Your task to perform on an android device: Find coffee shops on Maps Image 0: 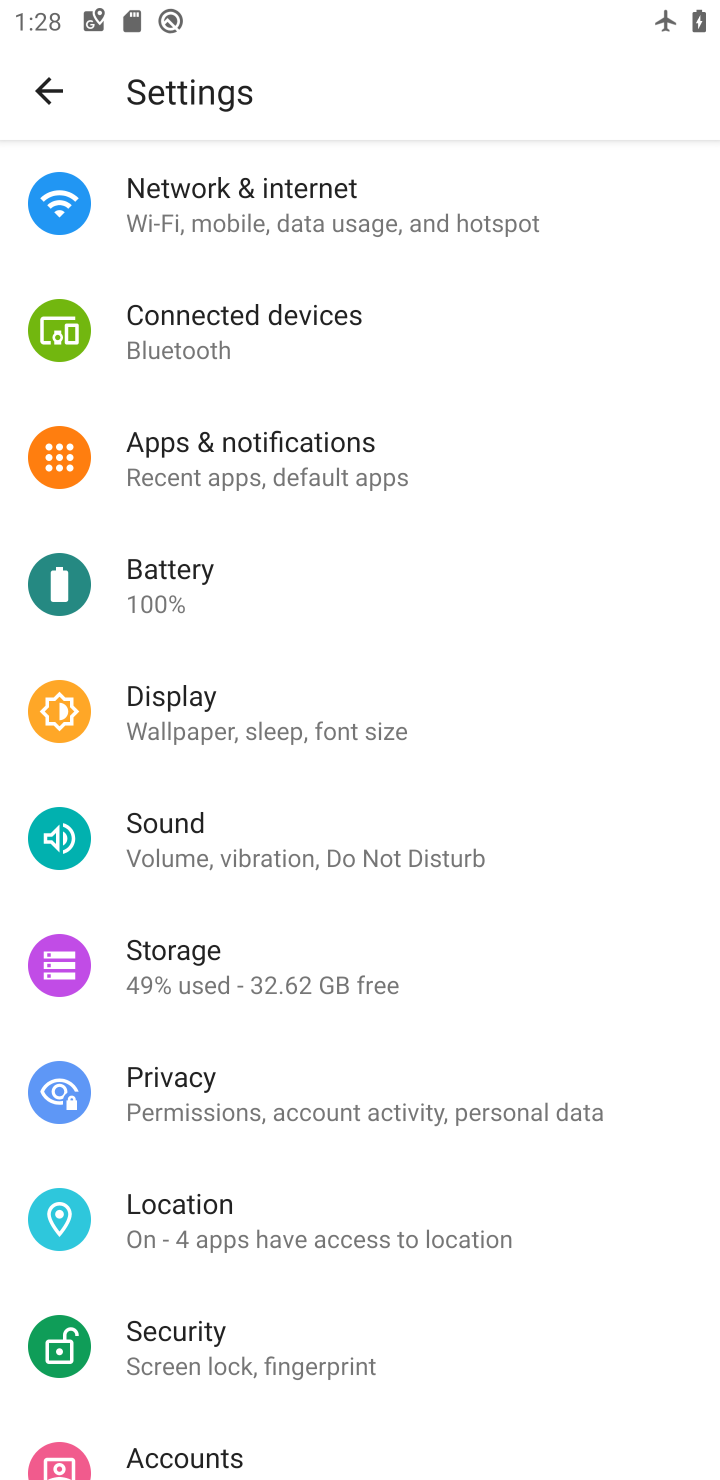
Step 0: press home button
Your task to perform on an android device: Find coffee shops on Maps Image 1: 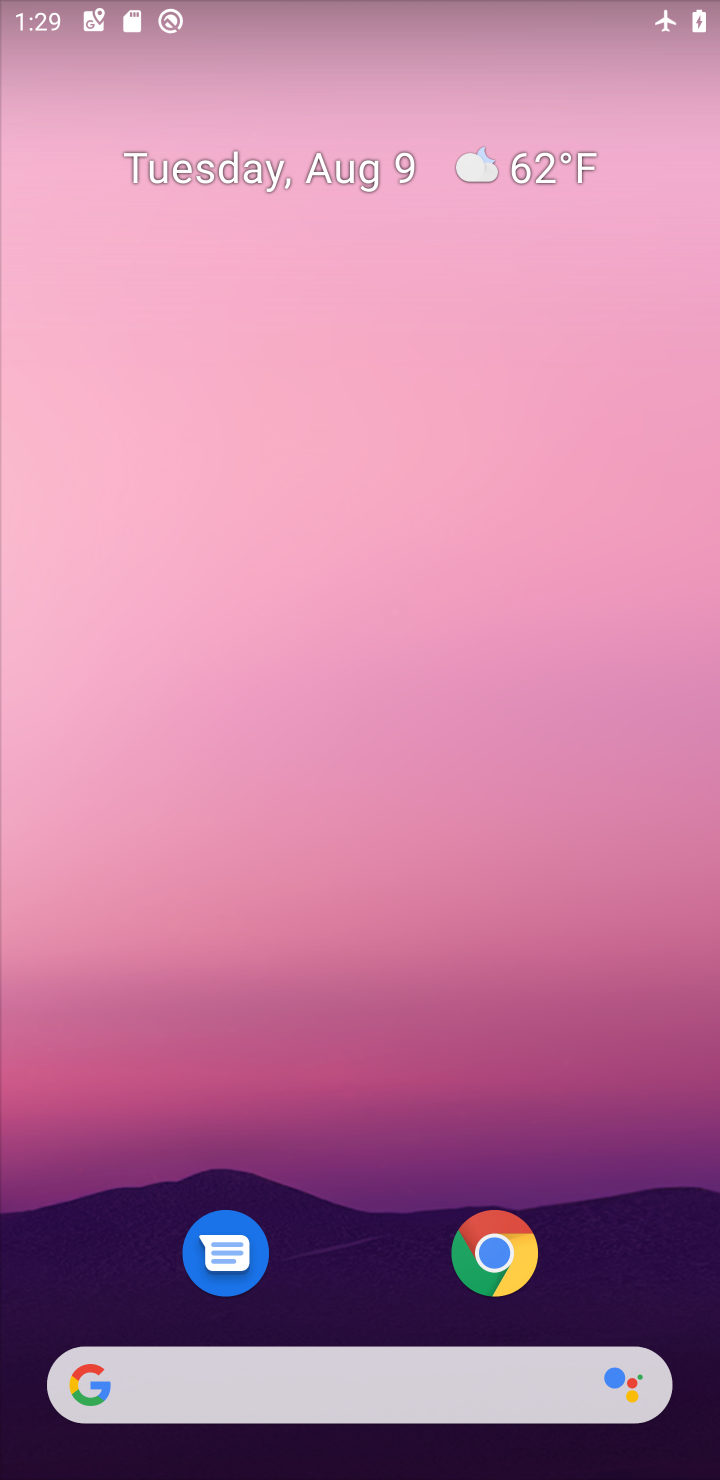
Step 1: drag from (598, 960) to (327, 8)
Your task to perform on an android device: Find coffee shops on Maps Image 2: 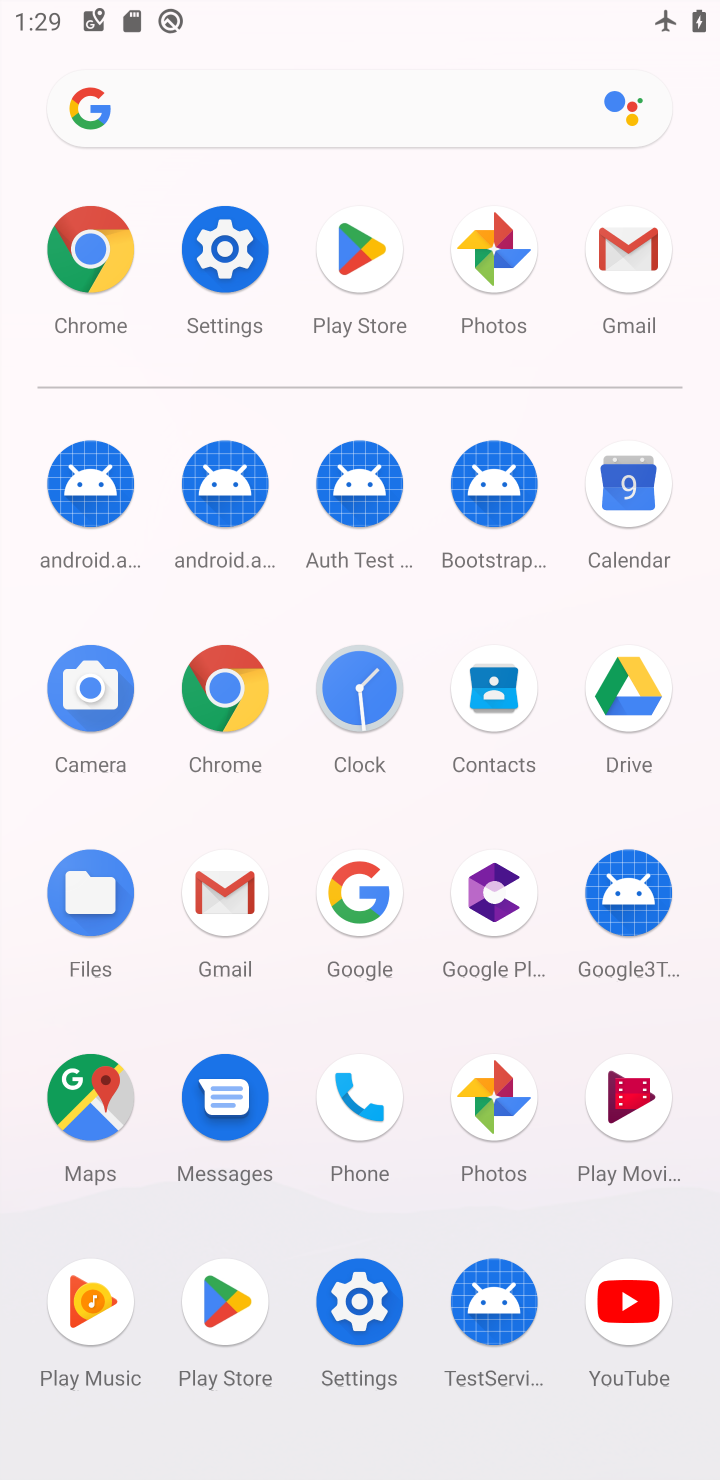
Step 2: click (88, 1117)
Your task to perform on an android device: Find coffee shops on Maps Image 3: 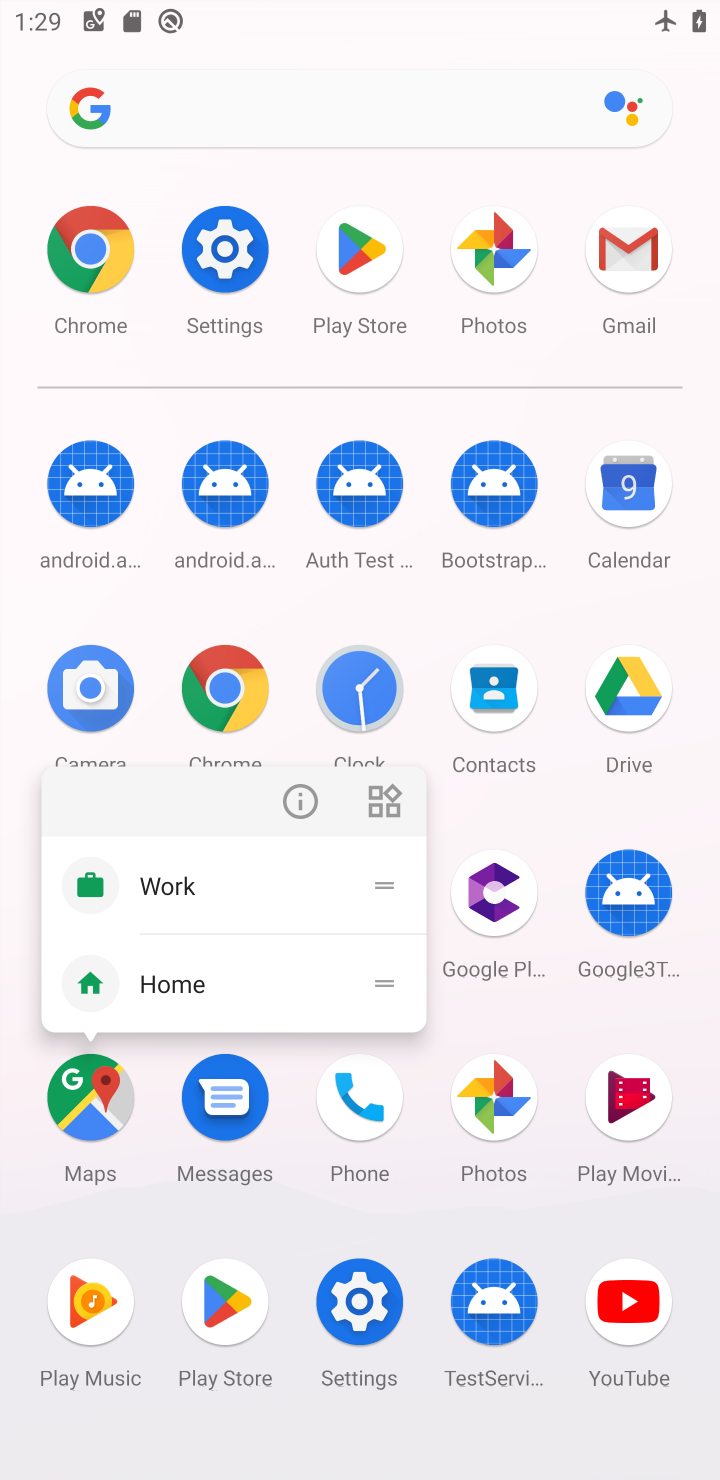
Step 3: click (88, 1117)
Your task to perform on an android device: Find coffee shops on Maps Image 4: 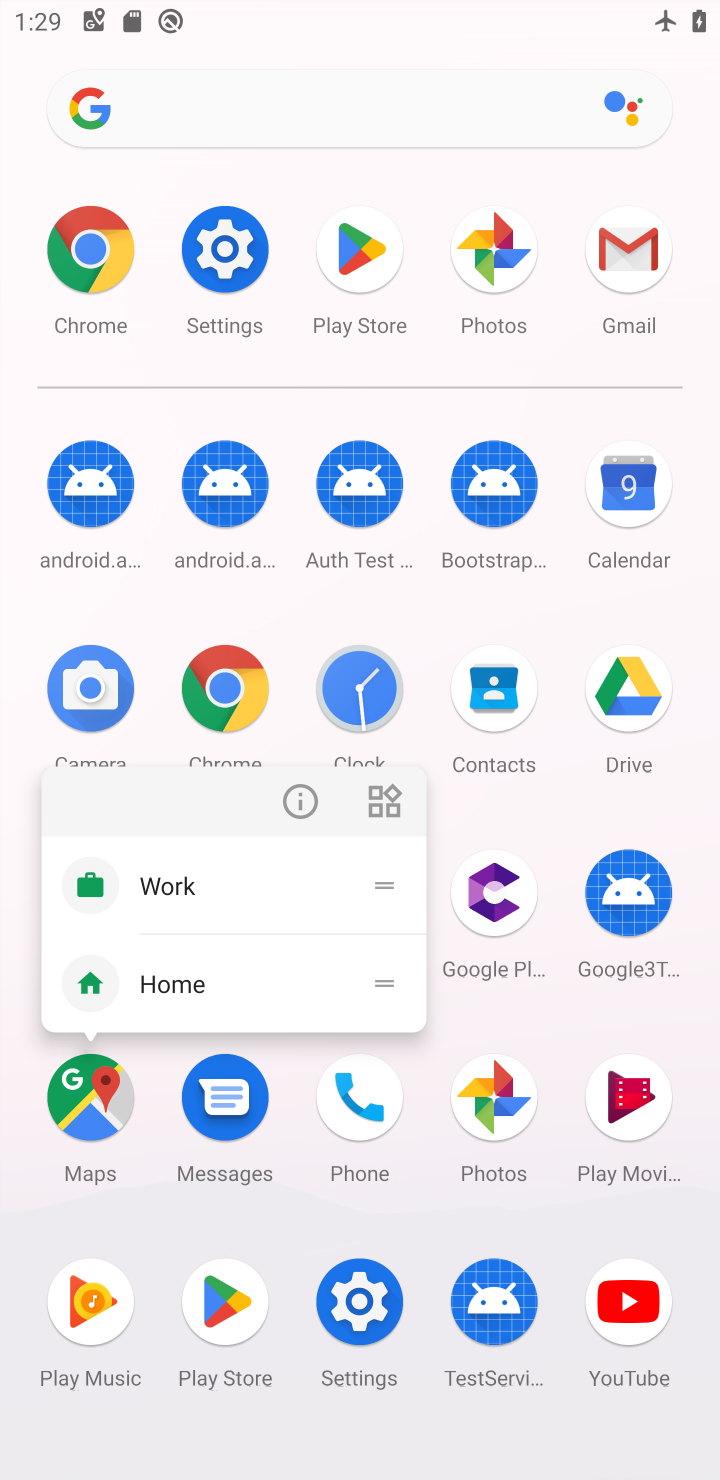
Step 4: click (88, 1117)
Your task to perform on an android device: Find coffee shops on Maps Image 5: 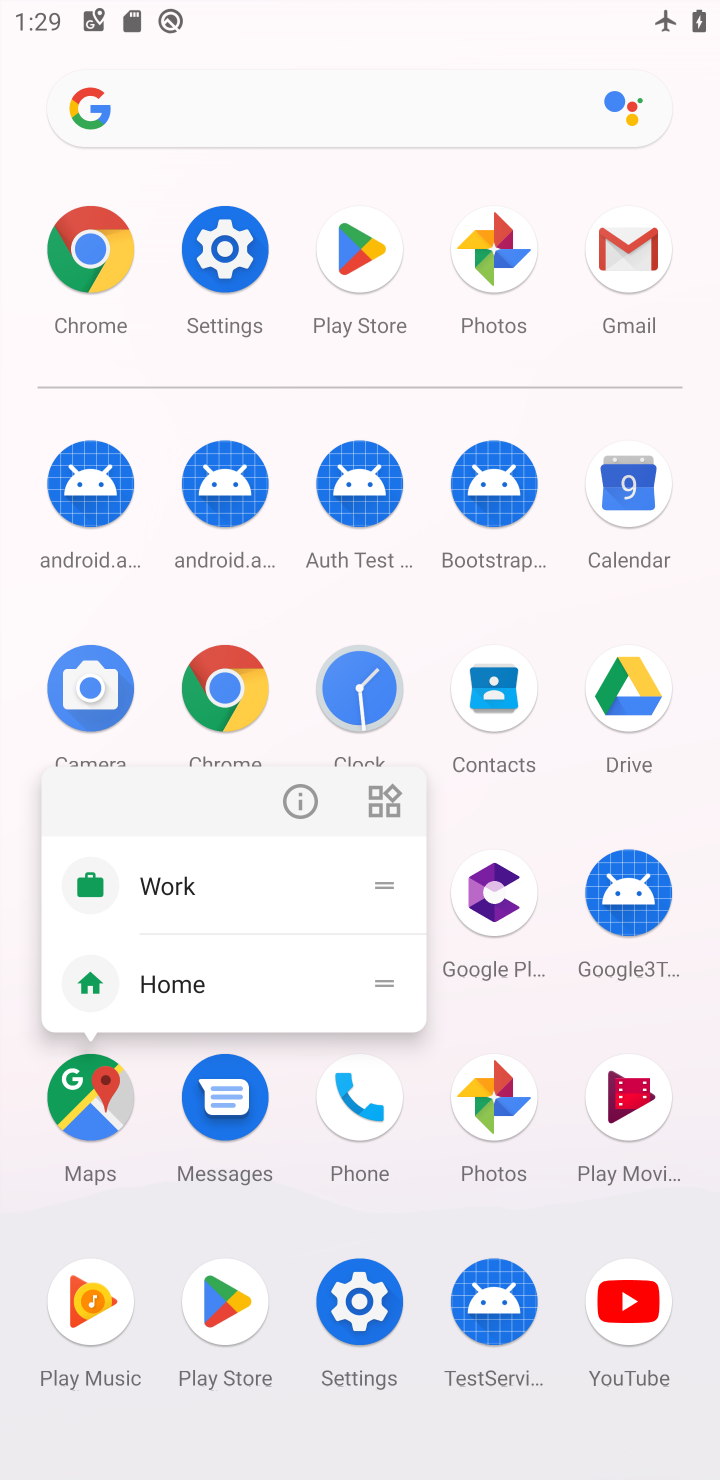
Step 5: click (88, 1117)
Your task to perform on an android device: Find coffee shops on Maps Image 6: 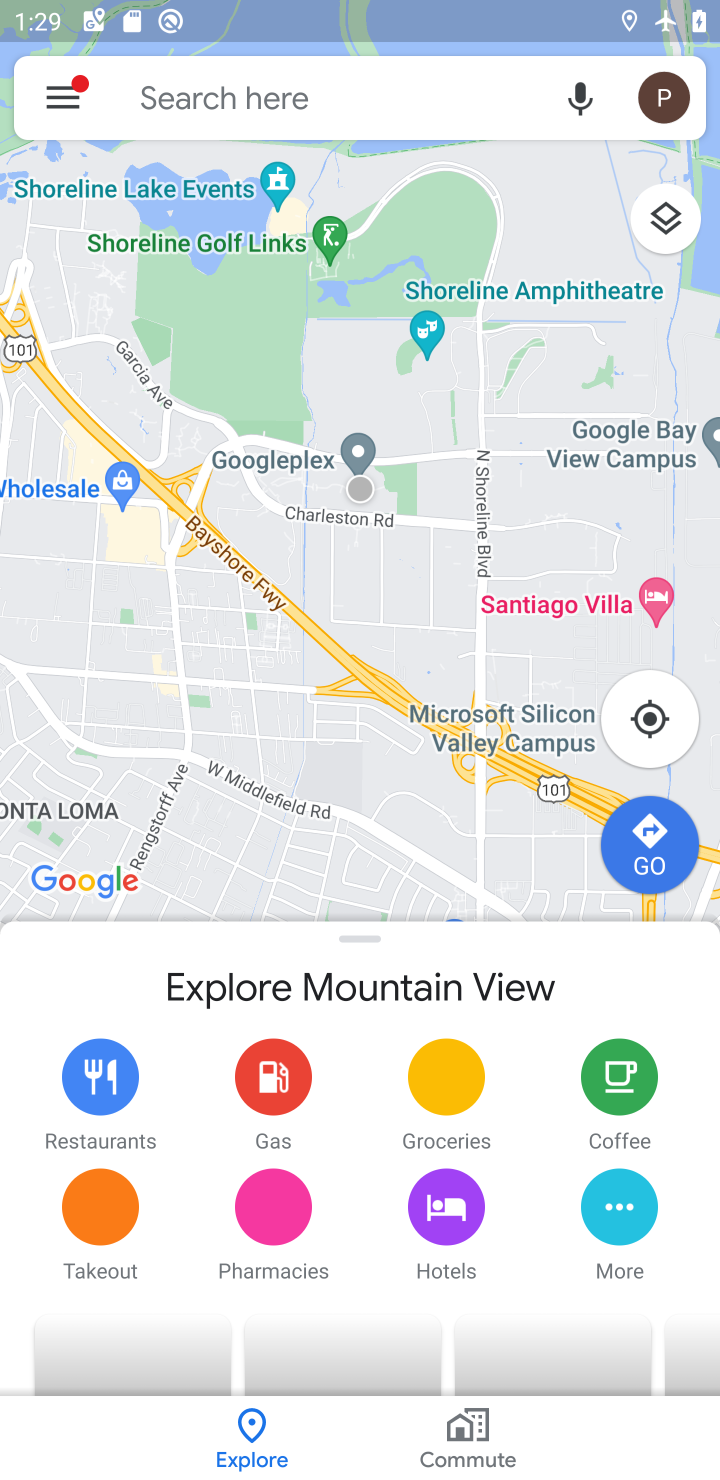
Step 6: click (314, 104)
Your task to perform on an android device: Find coffee shops on Maps Image 7: 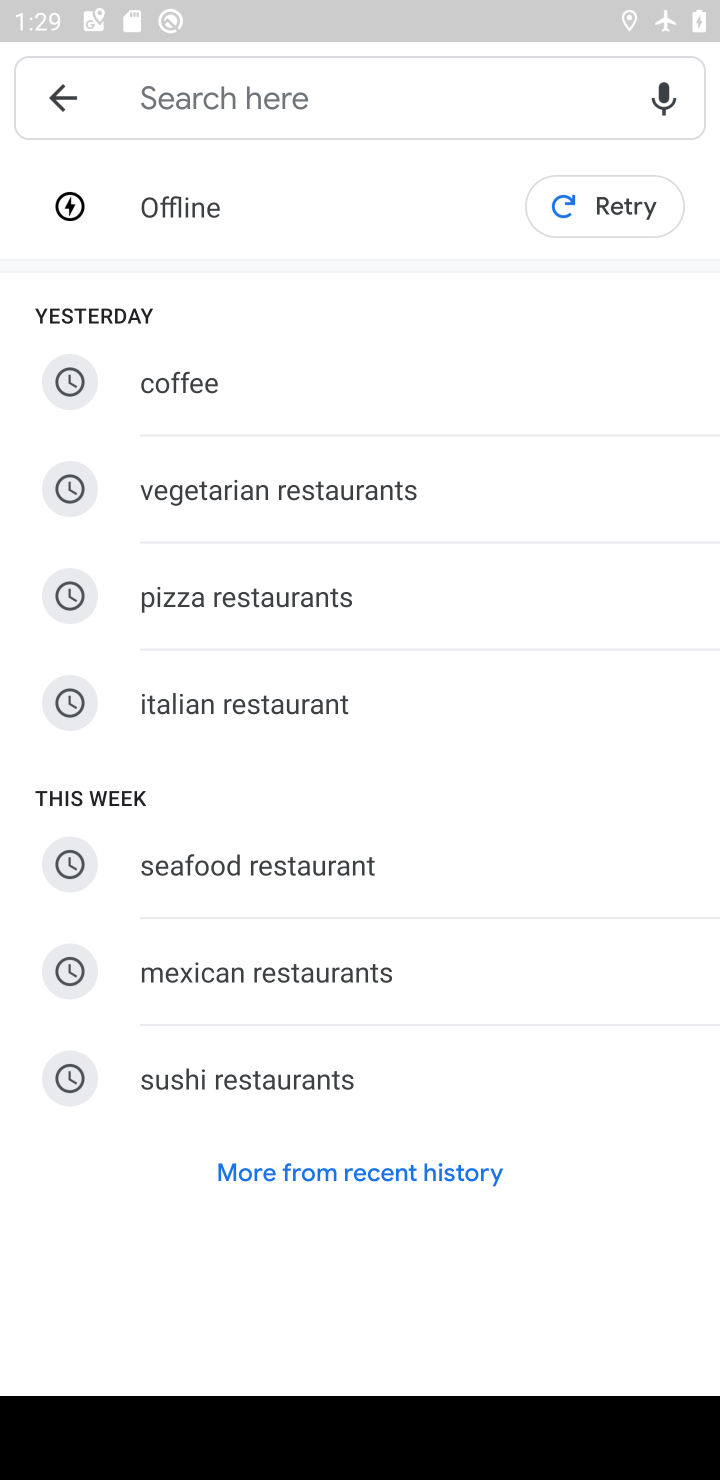
Step 7: click (185, 397)
Your task to perform on an android device: Find coffee shops on Maps Image 8: 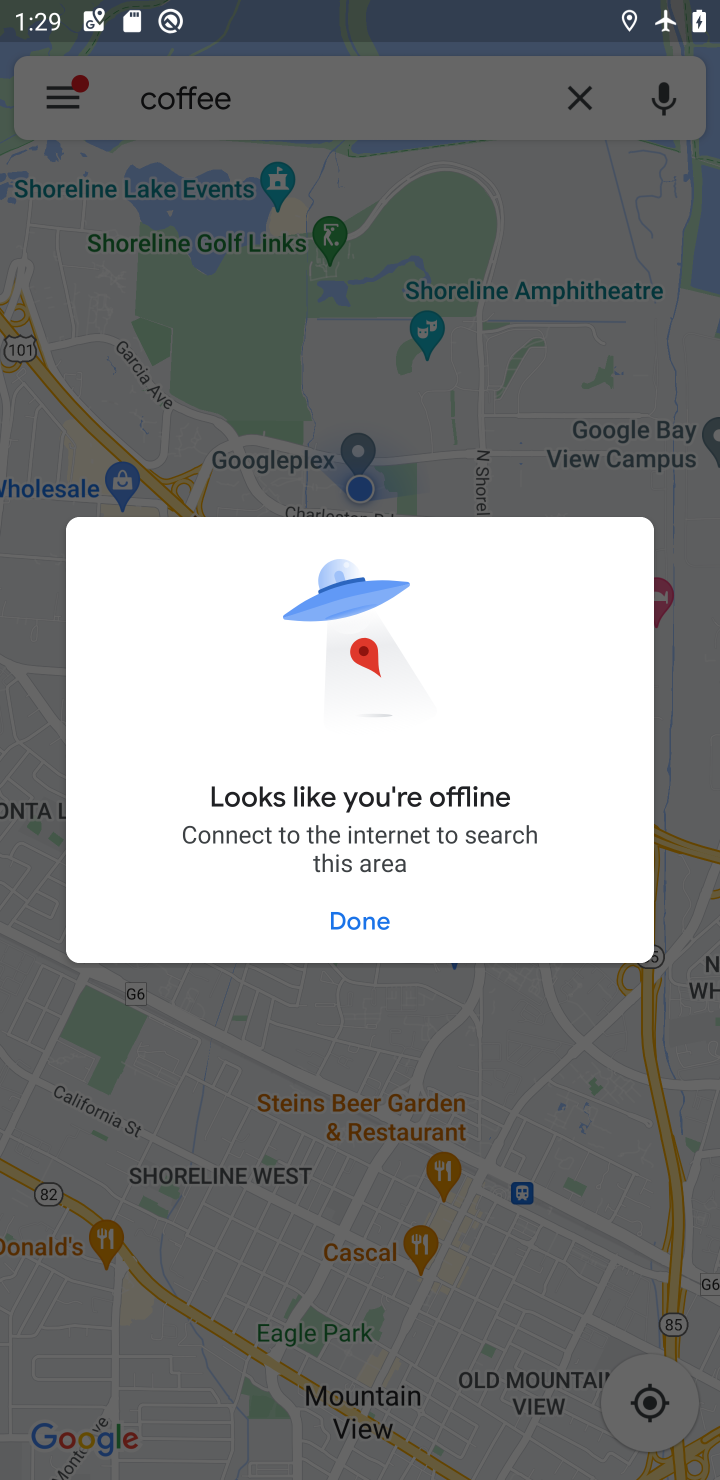
Step 8: task complete